Your task to perform on an android device: turn on javascript in the chrome app Image 0: 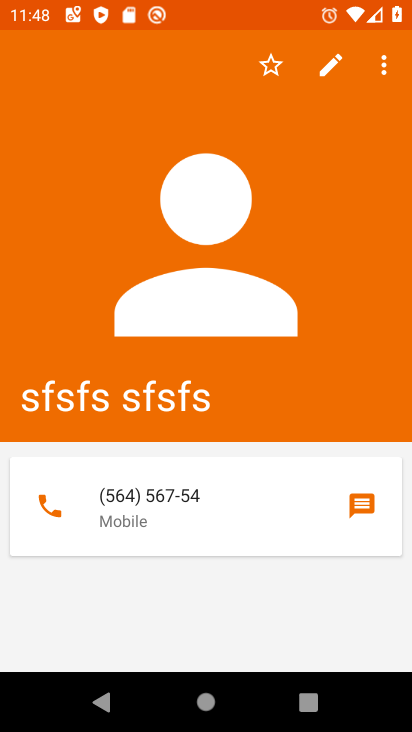
Step 0: press home button
Your task to perform on an android device: turn on javascript in the chrome app Image 1: 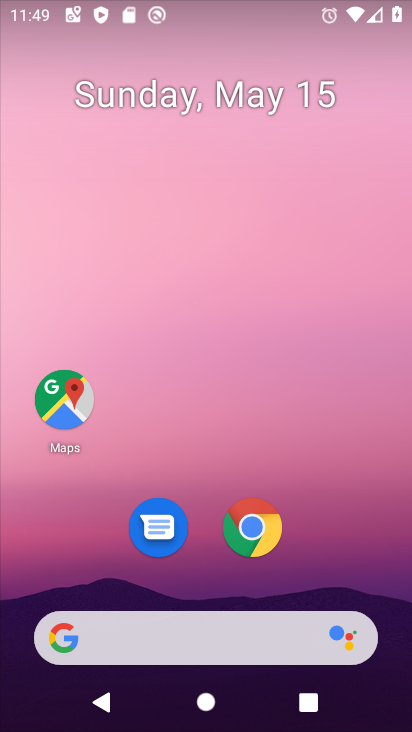
Step 1: click (236, 529)
Your task to perform on an android device: turn on javascript in the chrome app Image 2: 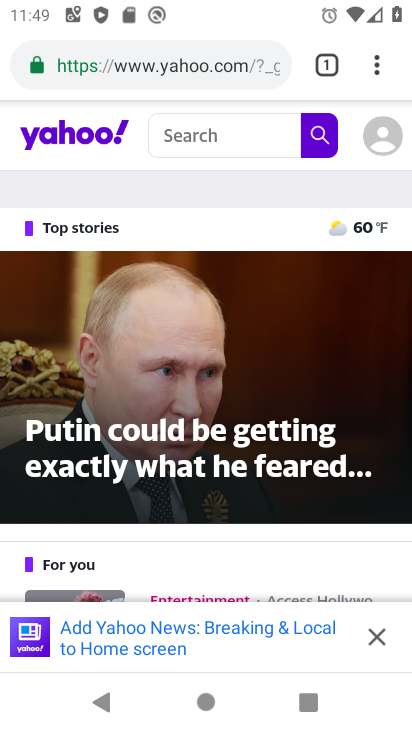
Step 2: click (385, 65)
Your task to perform on an android device: turn on javascript in the chrome app Image 3: 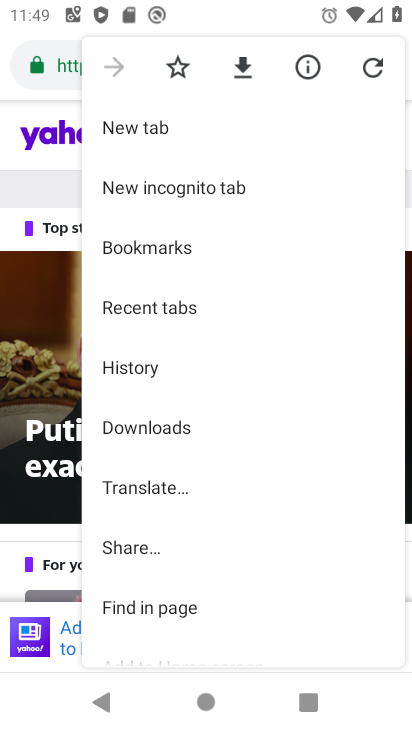
Step 3: drag from (182, 589) to (240, 150)
Your task to perform on an android device: turn on javascript in the chrome app Image 4: 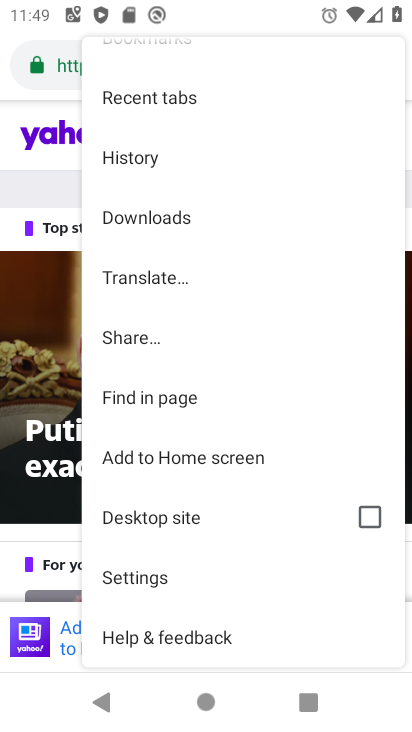
Step 4: click (158, 580)
Your task to perform on an android device: turn on javascript in the chrome app Image 5: 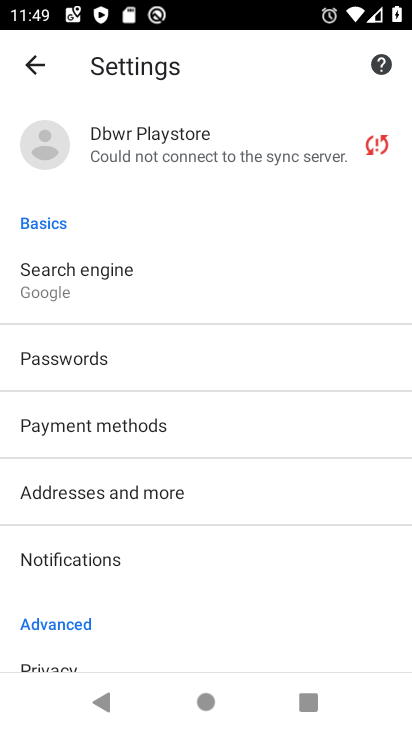
Step 5: drag from (211, 545) to (248, 316)
Your task to perform on an android device: turn on javascript in the chrome app Image 6: 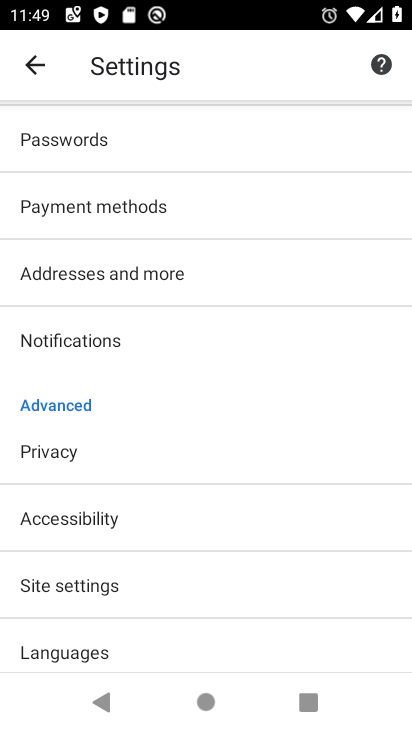
Step 6: click (163, 576)
Your task to perform on an android device: turn on javascript in the chrome app Image 7: 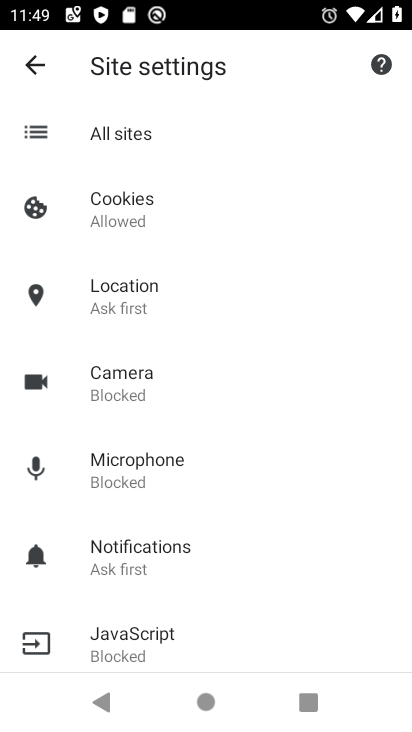
Step 7: click (151, 618)
Your task to perform on an android device: turn on javascript in the chrome app Image 8: 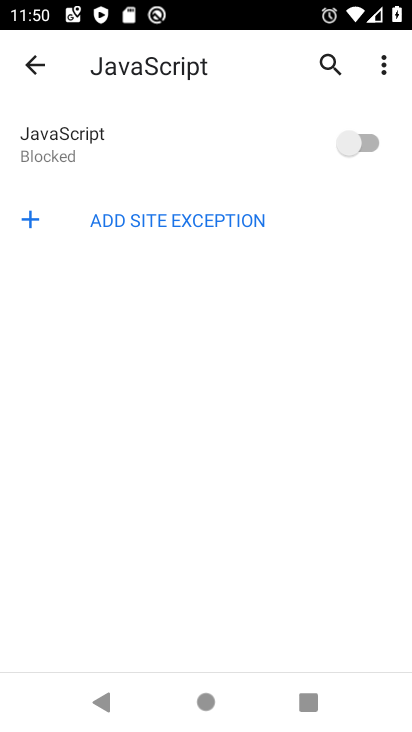
Step 8: click (334, 130)
Your task to perform on an android device: turn on javascript in the chrome app Image 9: 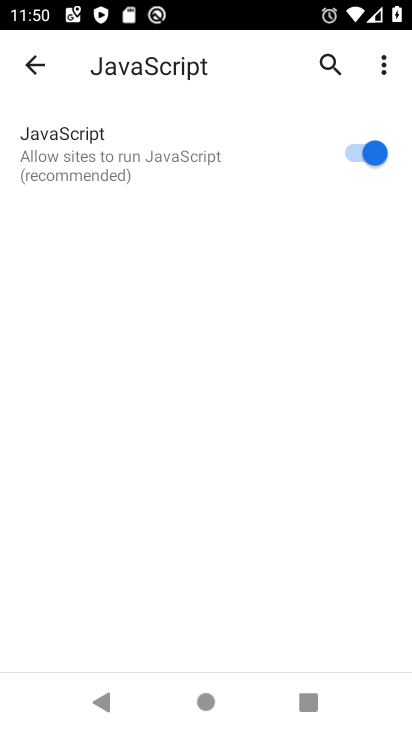
Step 9: task complete